Your task to perform on an android device: Search for top rated pizza restaurants on Maps Image 0: 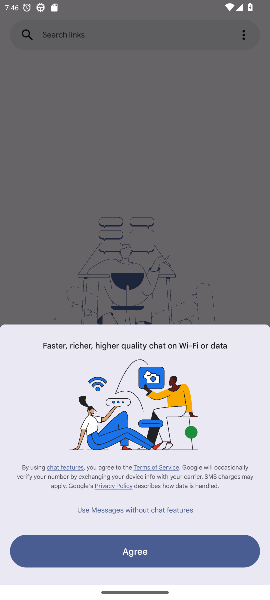
Step 0: press home button
Your task to perform on an android device: Search for top rated pizza restaurants on Maps Image 1: 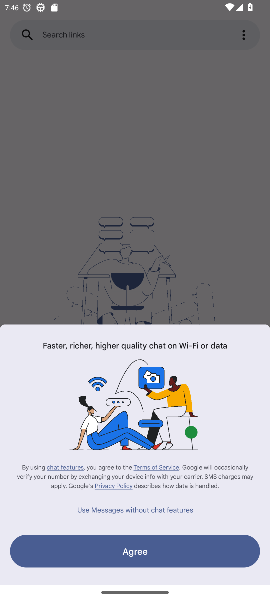
Step 1: press home button
Your task to perform on an android device: Search for top rated pizza restaurants on Maps Image 2: 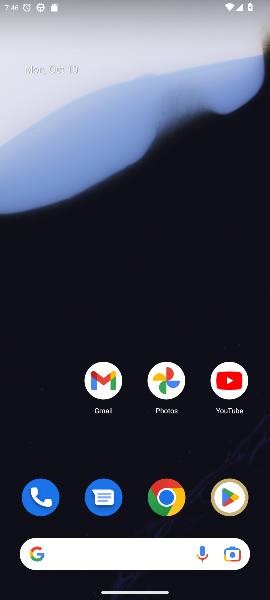
Step 2: drag from (102, 521) to (132, 187)
Your task to perform on an android device: Search for top rated pizza restaurants on Maps Image 3: 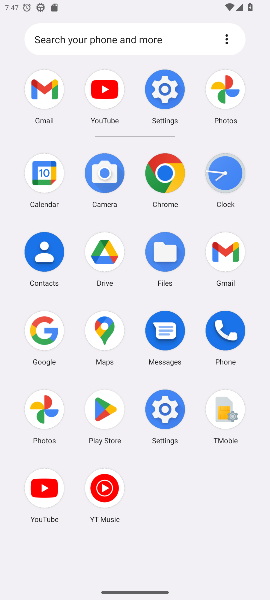
Step 3: click (40, 316)
Your task to perform on an android device: Search for top rated pizza restaurants on Maps Image 4: 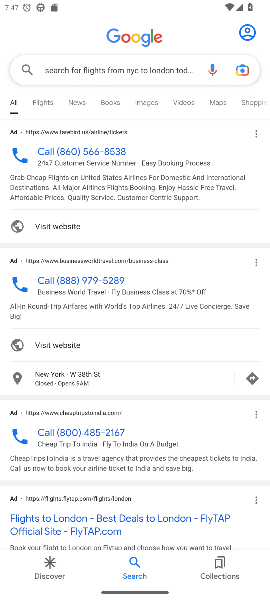
Step 4: click (168, 67)
Your task to perform on an android device: Search for top rated pizza restaurants on Maps Image 5: 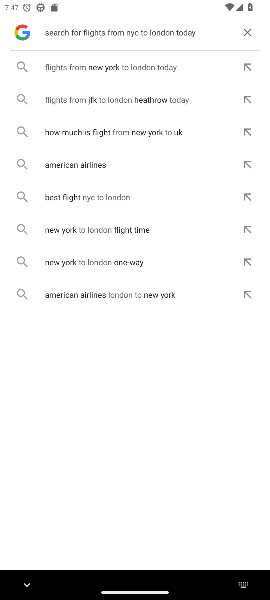
Step 5: click (253, 33)
Your task to perform on an android device: Search for top rated pizza restaurants on Maps Image 6: 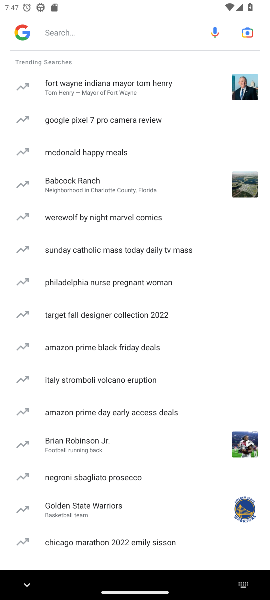
Step 6: click (88, 36)
Your task to perform on an android device: Search for top rated pizza restaurants on Maps Image 7: 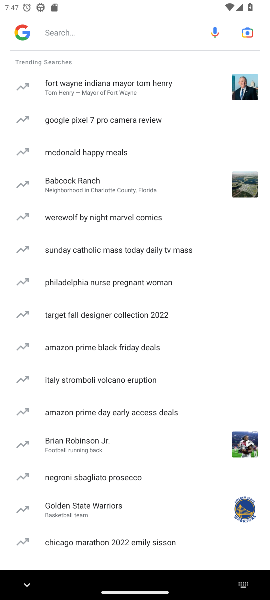
Step 7: type "Search for top rated pizza restaurants on Maps "
Your task to perform on an android device: Search for top rated pizza restaurants on Maps Image 8: 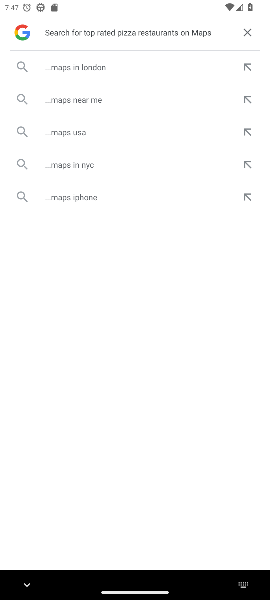
Step 8: click (84, 99)
Your task to perform on an android device: Search for top rated pizza restaurants on Maps Image 9: 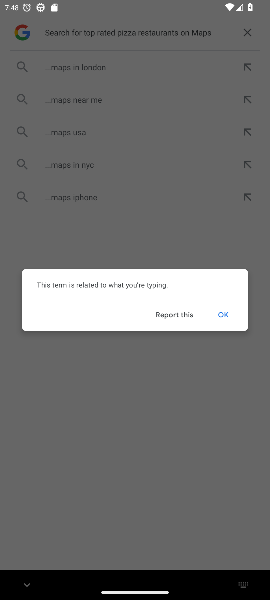
Step 9: click (218, 310)
Your task to perform on an android device: Search for top rated pizza restaurants on Maps Image 10: 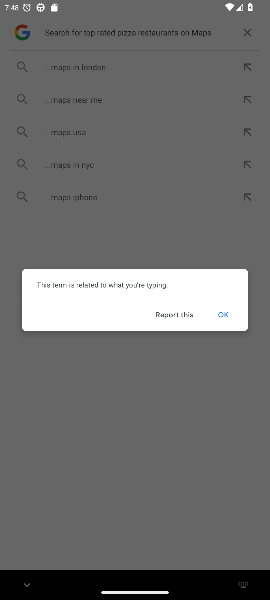
Step 10: click (218, 310)
Your task to perform on an android device: Search for top rated pizza restaurants on Maps Image 11: 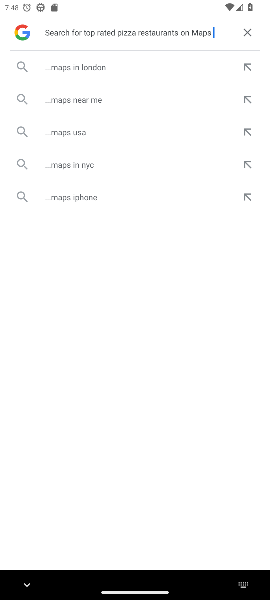
Step 11: click (82, 68)
Your task to perform on an android device: Search for top rated pizza restaurants on Maps Image 12: 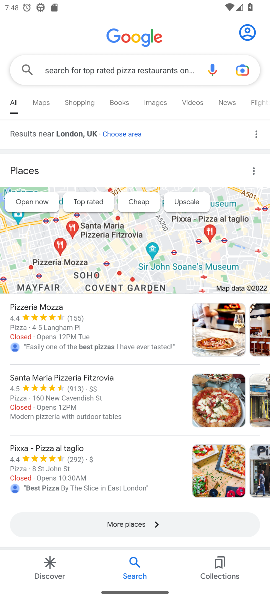
Step 12: task complete